Your task to perform on an android device: turn on translation in the chrome app Image 0: 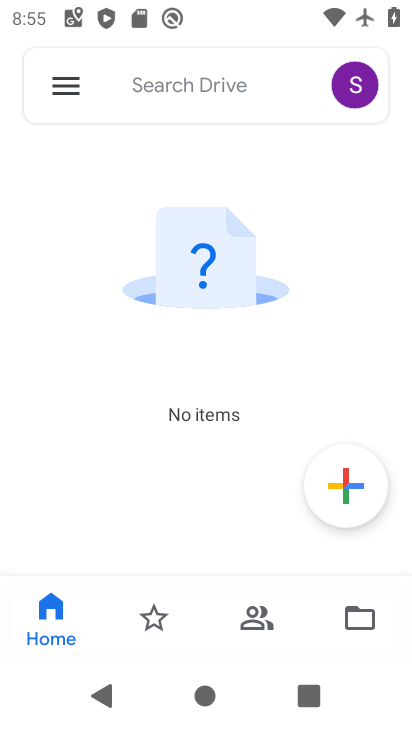
Step 0: press home button
Your task to perform on an android device: turn on translation in the chrome app Image 1: 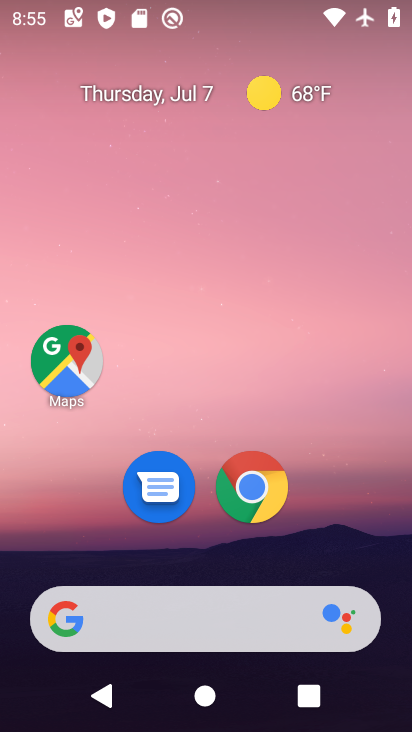
Step 1: click (245, 472)
Your task to perform on an android device: turn on translation in the chrome app Image 2: 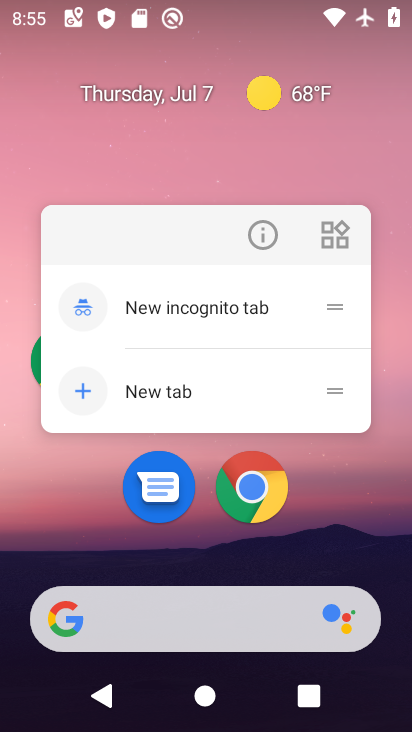
Step 2: click (250, 489)
Your task to perform on an android device: turn on translation in the chrome app Image 3: 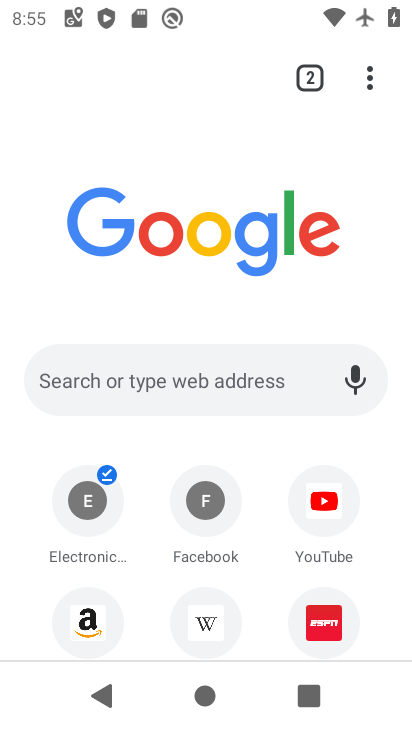
Step 3: click (370, 77)
Your task to perform on an android device: turn on translation in the chrome app Image 4: 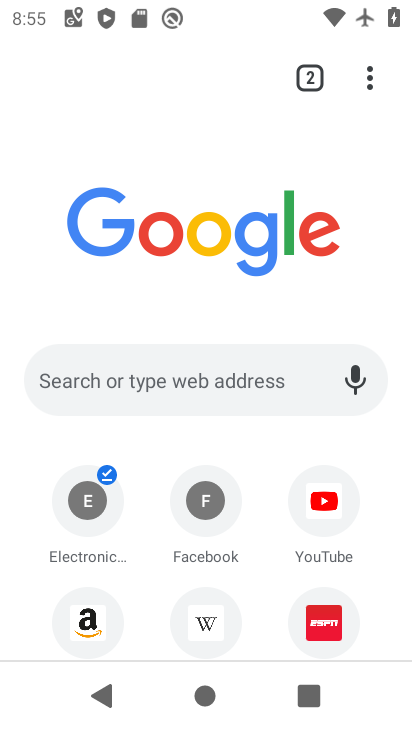
Step 4: click (366, 72)
Your task to perform on an android device: turn on translation in the chrome app Image 5: 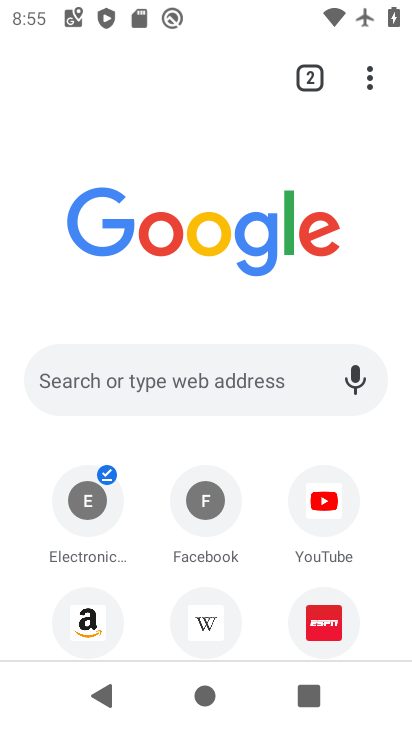
Step 5: drag from (368, 75) to (64, 549)
Your task to perform on an android device: turn on translation in the chrome app Image 6: 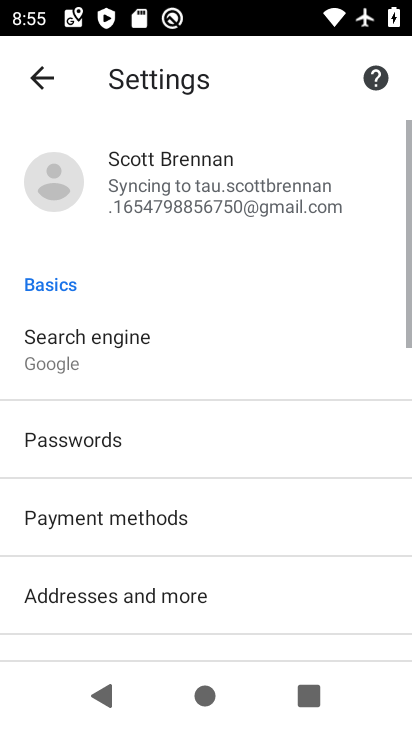
Step 6: drag from (67, 542) to (70, 55)
Your task to perform on an android device: turn on translation in the chrome app Image 7: 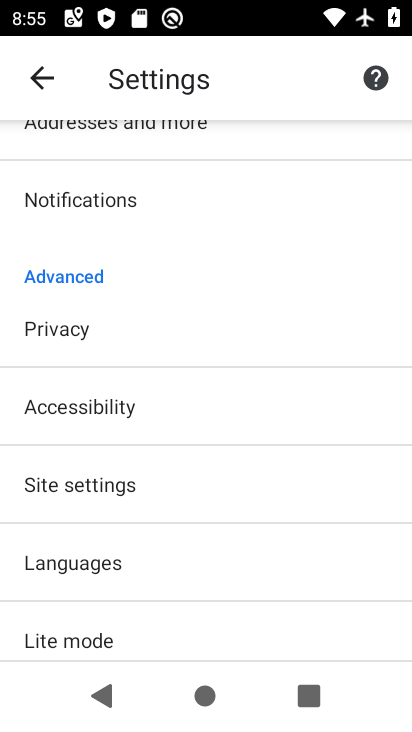
Step 7: drag from (102, 542) to (115, 194)
Your task to perform on an android device: turn on translation in the chrome app Image 8: 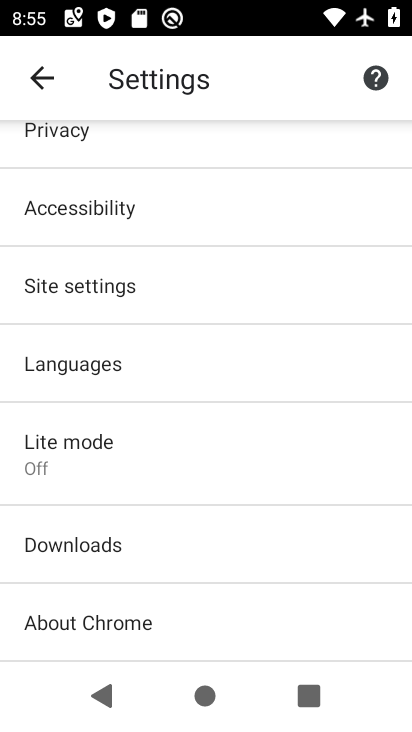
Step 8: click (79, 356)
Your task to perform on an android device: turn on translation in the chrome app Image 9: 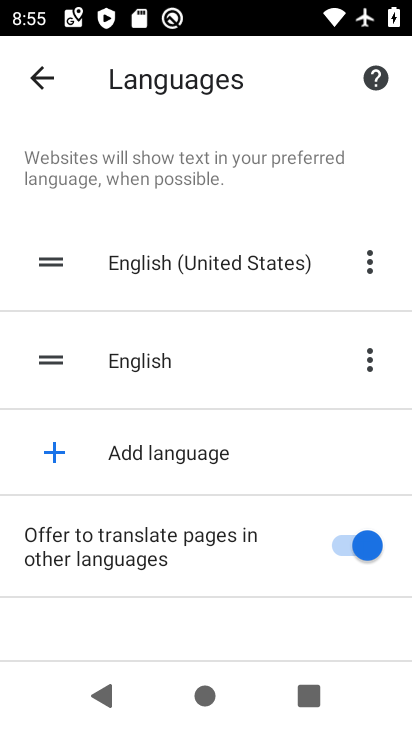
Step 9: task complete